Your task to perform on an android device: turn on javascript in the chrome app Image 0: 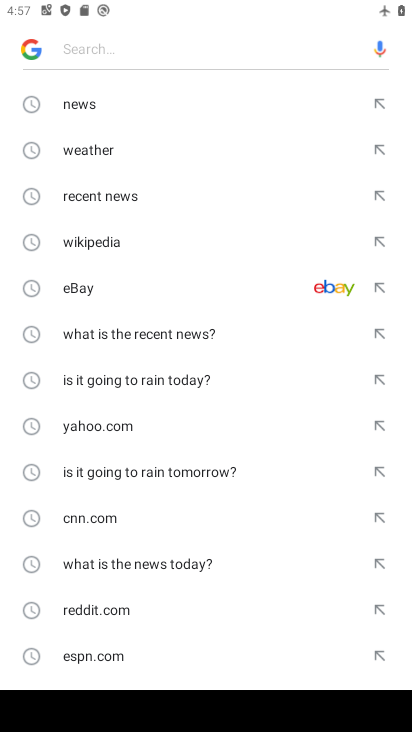
Step 0: press back button
Your task to perform on an android device: turn on javascript in the chrome app Image 1: 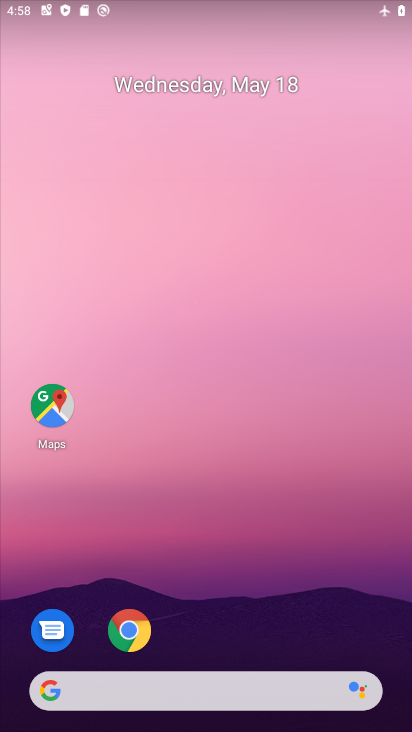
Step 1: click (130, 631)
Your task to perform on an android device: turn on javascript in the chrome app Image 2: 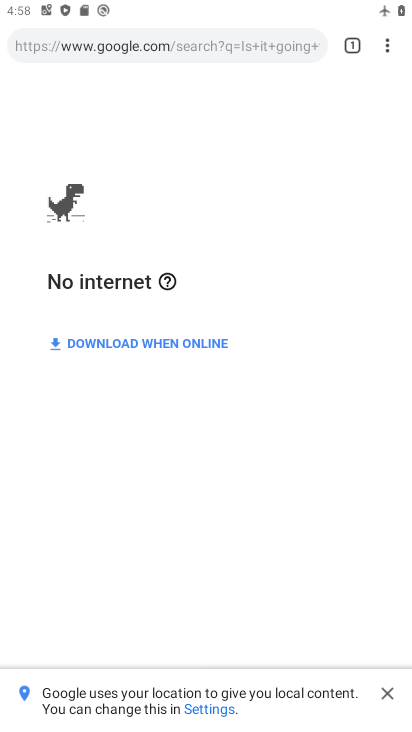
Step 2: click (386, 44)
Your task to perform on an android device: turn on javascript in the chrome app Image 3: 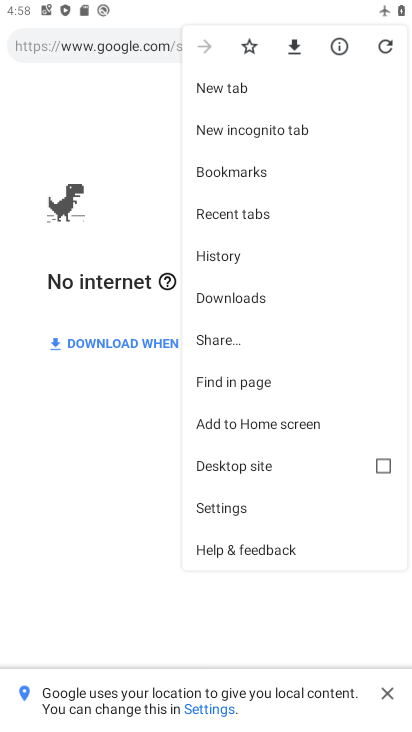
Step 3: click (231, 510)
Your task to perform on an android device: turn on javascript in the chrome app Image 4: 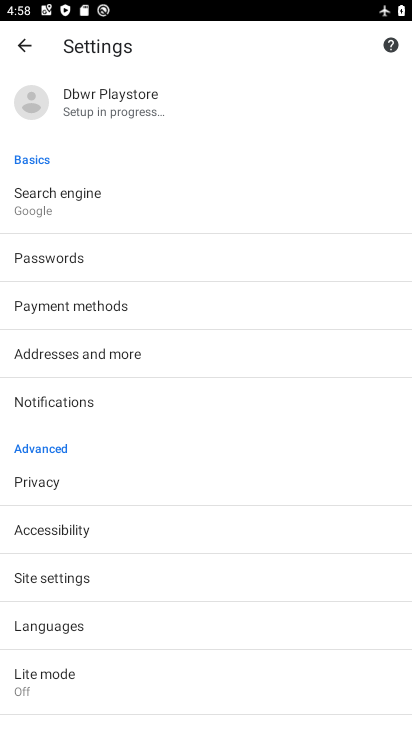
Step 4: click (48, 577)
Your task to perform on an android device: turn on javascript in the chrome app Image 5: 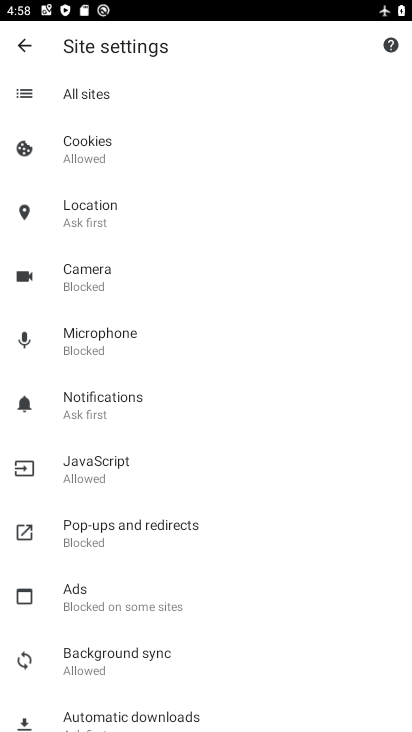
Step 5: click (90, 470)
Your task to perform on an android device: turn on javascript in the chrome app Image 6: 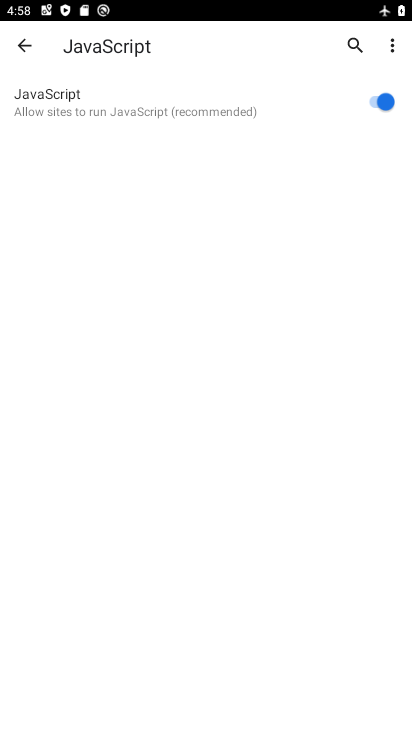
Step 6: task complete